Your task to perform on an android device: find snoozed emails in the gmail app Image 0: 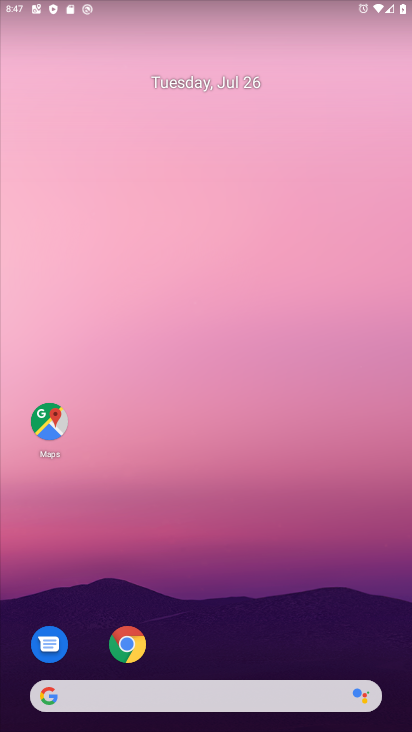
Step 0: drag from (298, 650) to (273, 220)
Your task to perform on an android device: find snoozed emails in the gmail app Image 1: 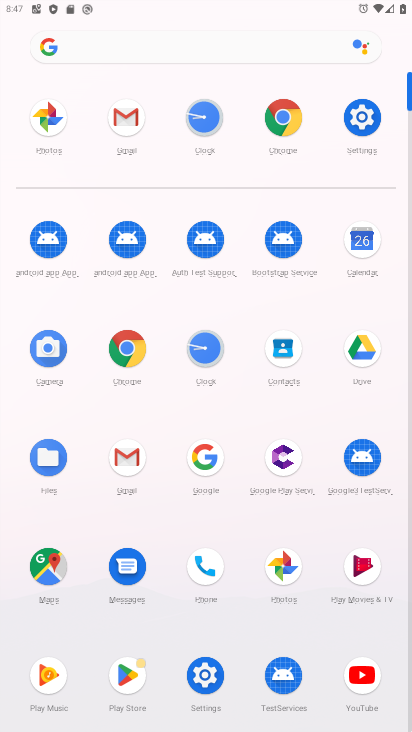
Step 1: click (124, 449)
Your task to perform on an android device: find snoozed emails in the gmail app Image 2: 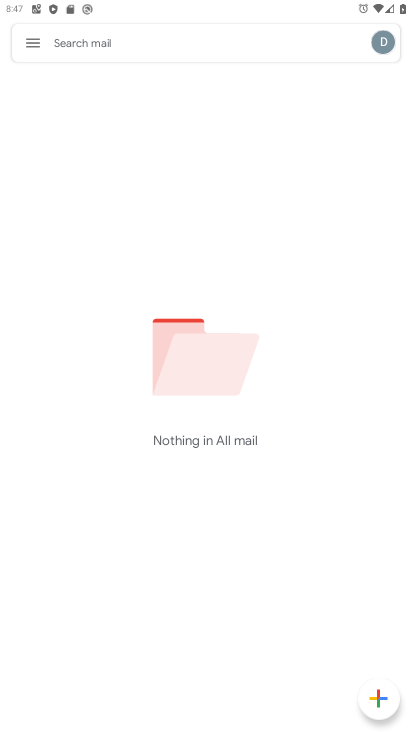
Step 2: click (28, 27)
Your task to perform on an android device: find snoozed emails in the gmail app Image 3: 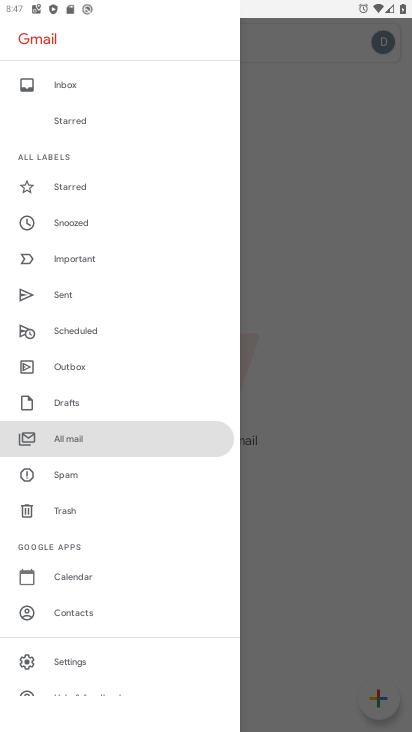
Step 3: click (82, 215)
Your task to perform on an android device: find snoozed emails in the gmail app Image 4: 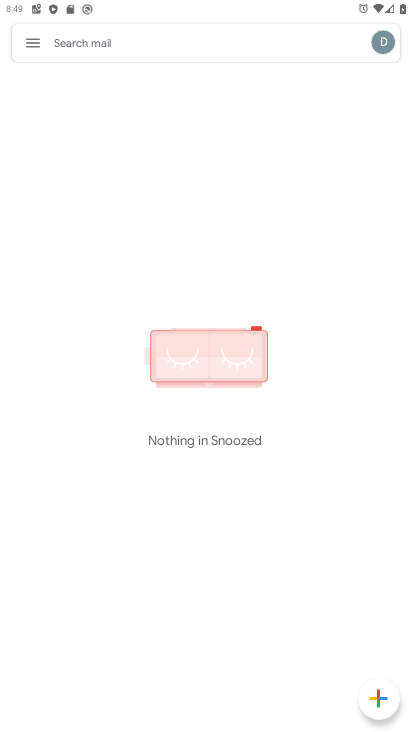
Step 4: task complete